Your task to perform on an android device: Open the map Image 0: 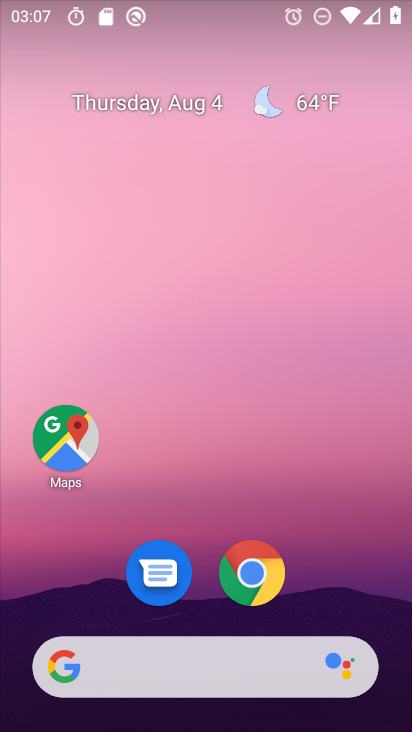
Step 0: drag from (356, 550) to (336, 55)
Your task to perform on an android device: Open the map Image 1: 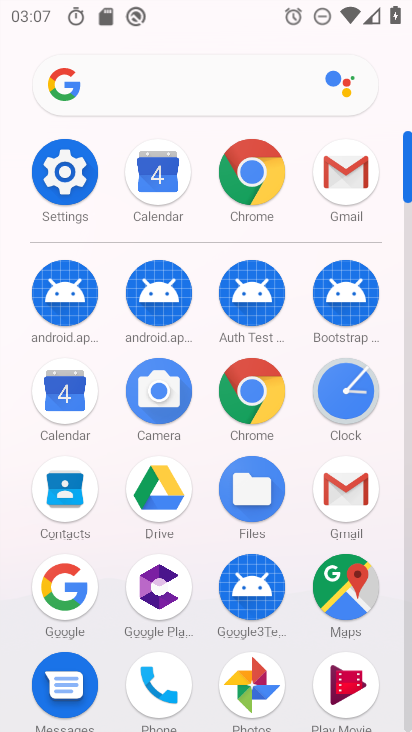
Step 1: click (337, 592)
Your task to perform on an android device: Open the map Image 2: 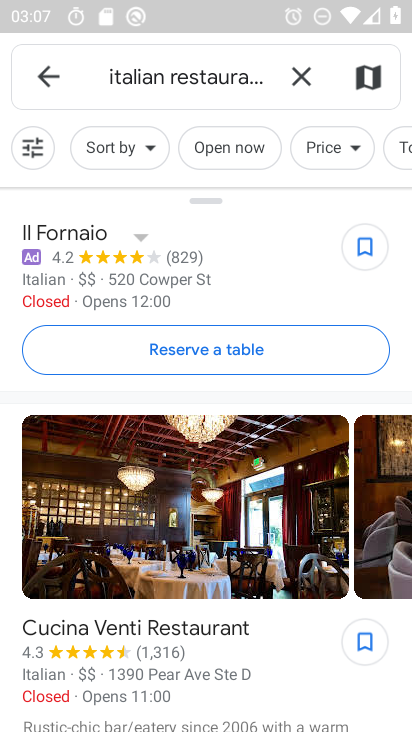
Step 2: task complete